Your task to perform on an android device: change text size in settings app Image 0: 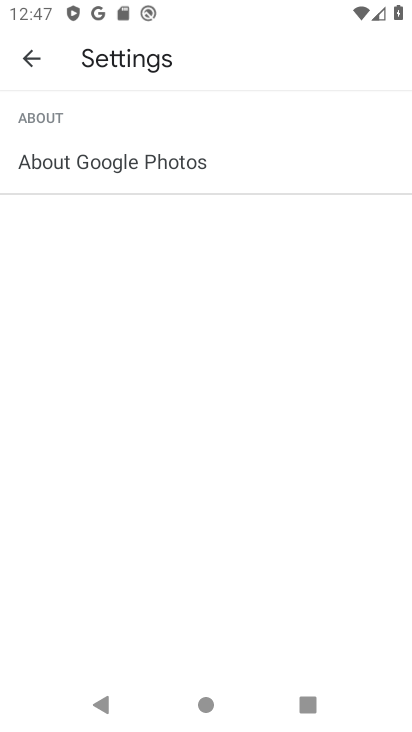
Step 0: press back button
Your task to perform on an android device: change text size in settings app Image 1: 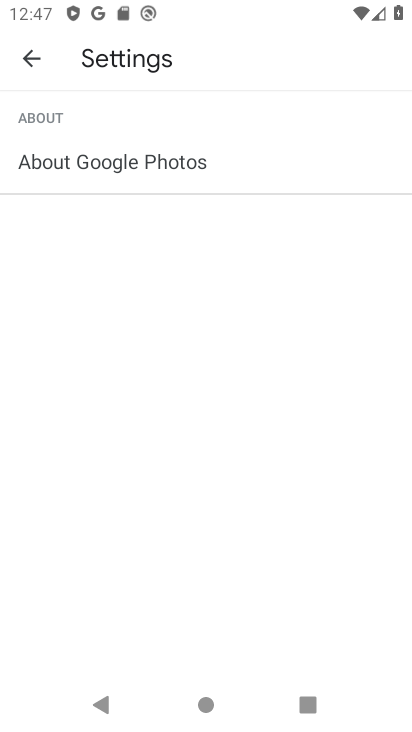
Step 1: press back button
Your task to perform on an android device: change text size in settings app Image 2: 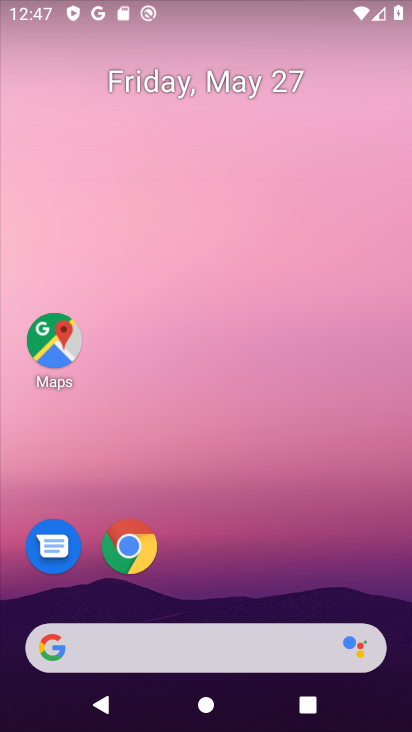
Step 2: drag from (256, 668) to (166, 352)
Your task to perform on an android device: change text size in settings app Image 3: 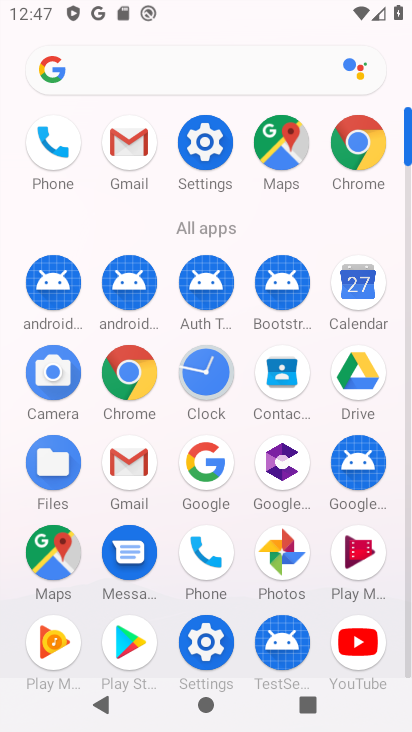
Step 3: click (204, 653)
Your task to perform on an android device: change text size in settings app Image 4: 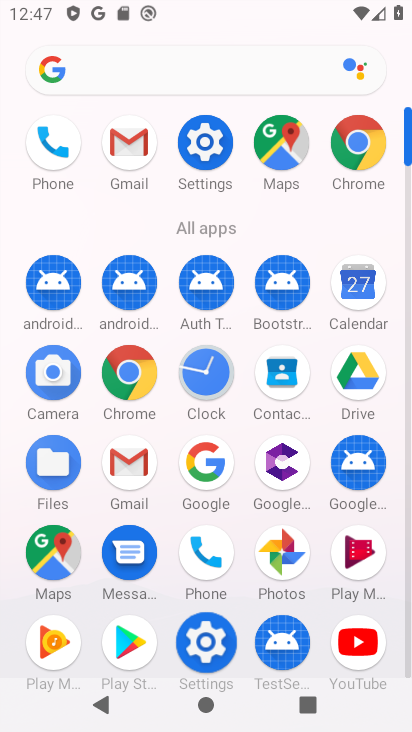
Step 4: click (203, 653)
Your task to perform on an android device: change text size in settings app Image 5: 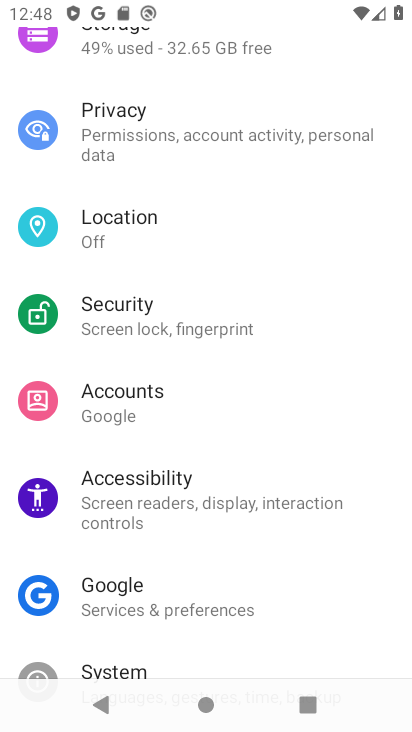
Step 5: drag from (165, 571) to (169, 273)
Your task to perform on an android device: change text size in settings app Image 6: 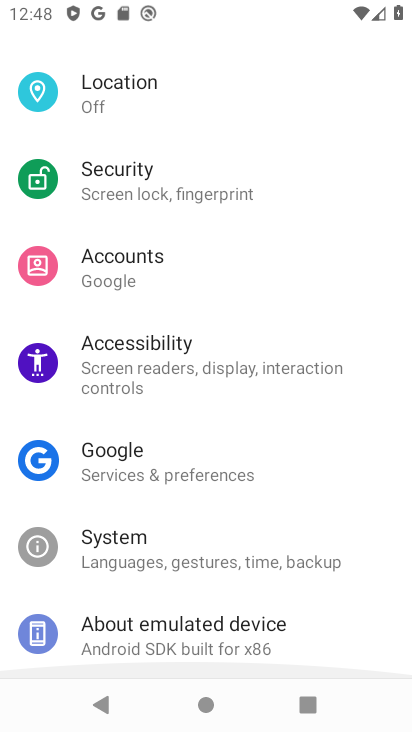
Step 6: drag from (182, 408) to (166, 199)
Your task to perform on an android device: change text size in settings app Image 7: 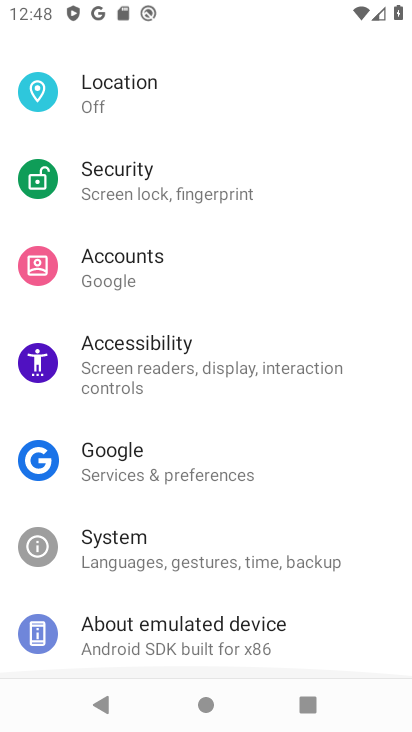
Step 7: drag from (196, 241) to (198, 169)
Your task to perform on an android device: change text size in settings app Image 8: 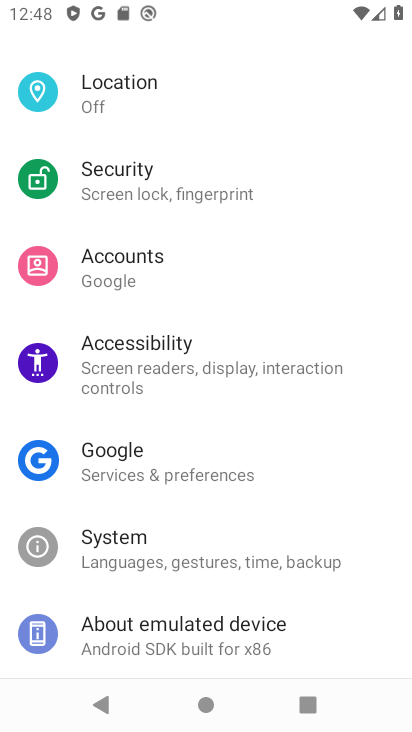
Step 8: drag from (179, 376) to (190, 450)
Your task to perform on an android device: change text size in settings app Image 9: 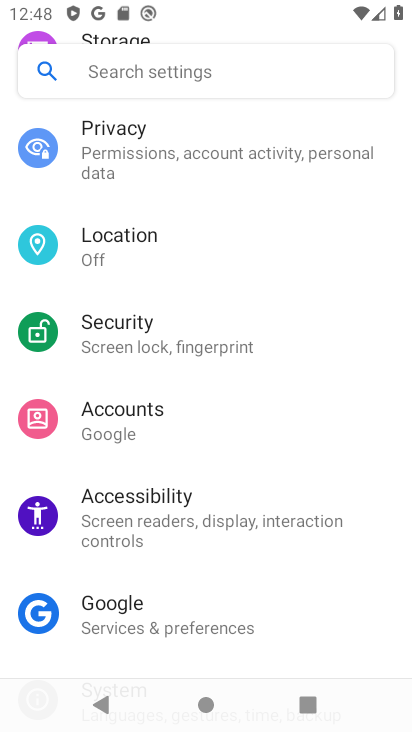
Step 9: drag from (130, 264) to (170, 554)
Your task to perform on an android device: change text size in settings app Image 10: 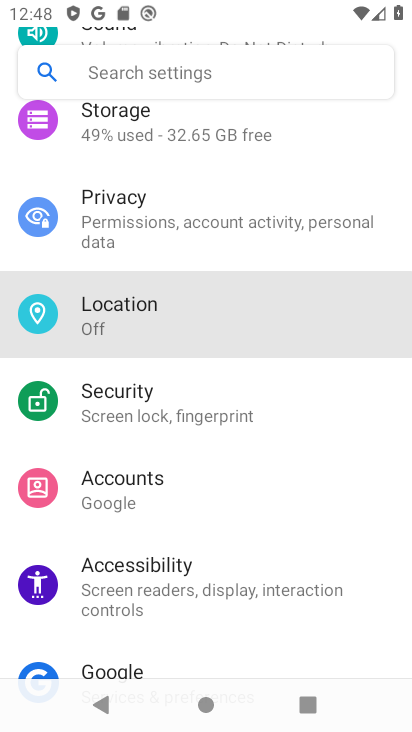
Step 10: drag from (108, 447) to (128, 589)
Your task to perform on an android device: change text size in settings app Image 11: 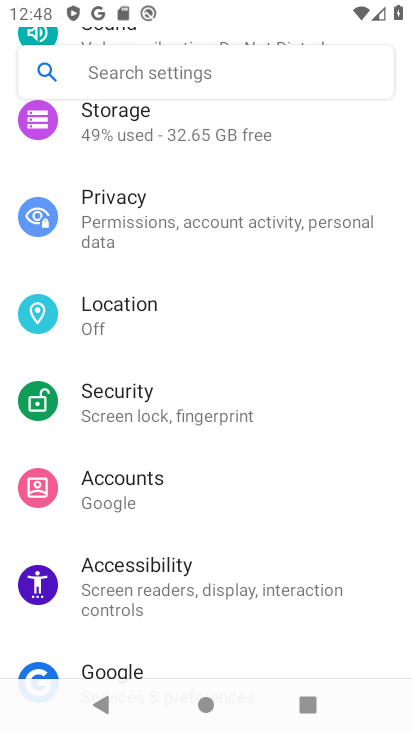
Step 11: drag from (121, 401) to (154, 571)
Your task to perform on an android device: change text size in settings app Image 12: 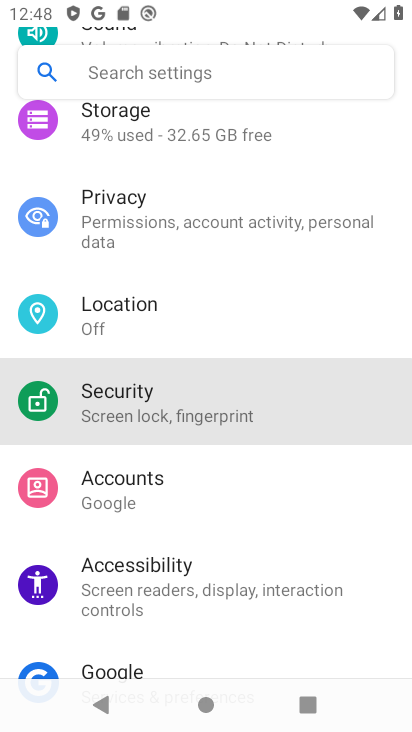
Step 12: drag from (137, 393) to (185, 622)
Your task to perform on an android device: change text size in settings app Image 13: 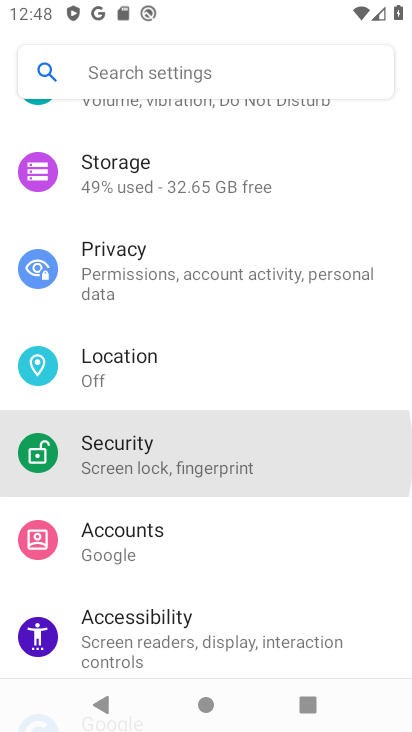
Step 13: drag from (185, 308) to (211, 483)
Your task to perform on an android device: change text size in settings app Image 14: 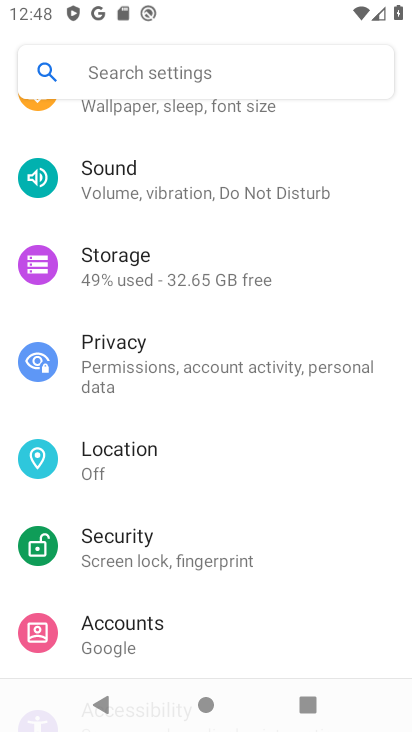
Step 14: drag from (175, 279) to (201, 452)
Your task to perform on an android device: change text size in settings app Image 15: 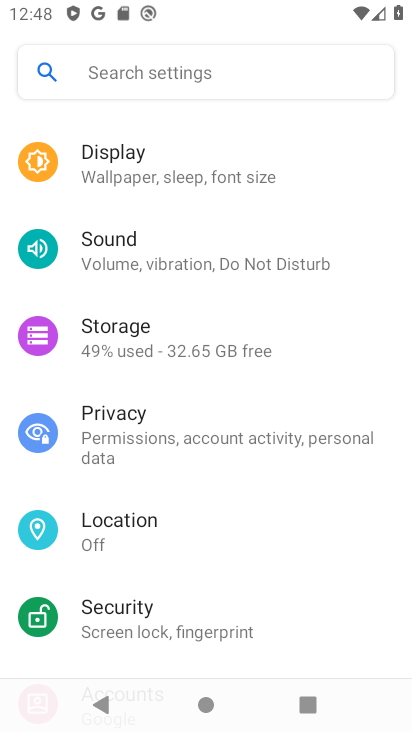
Step 15: drag from (171, 260) to (179, 487)
Your task to perform on an android device: change text size in settings app Image 16: 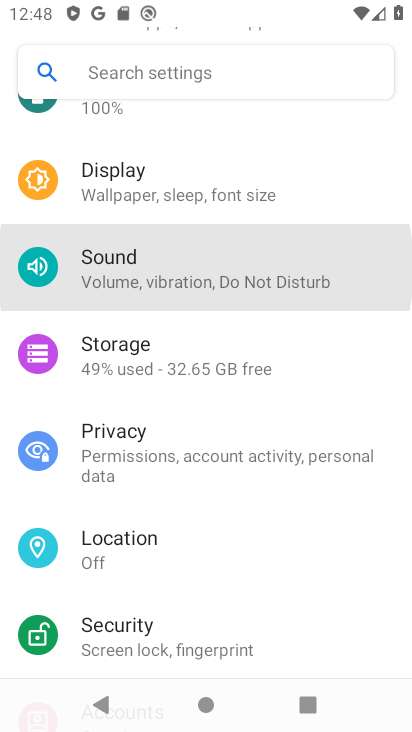
Step 16: drag from (163, 228) to (221, 503)
Your task to perform on an android device: change text size in settings app Image 17: 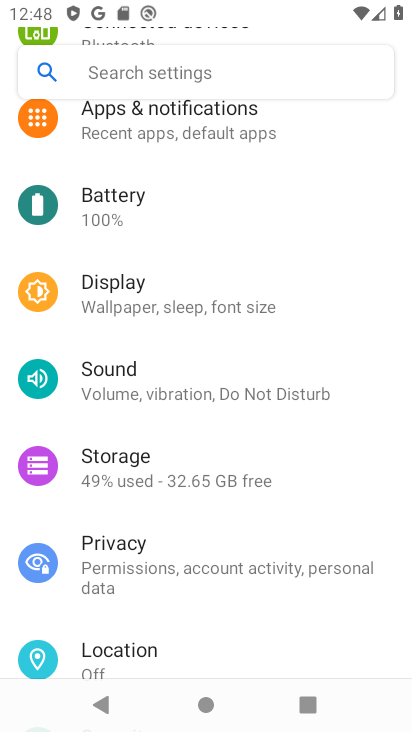
Step 17: drag from (188, 257) to (203, 511)
Your task to perform on an android device: change text size in settings app Image 18: 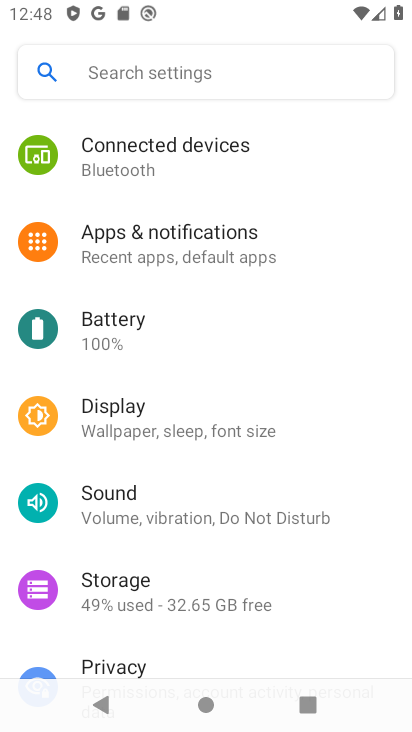
Step 18: drag from (141, 277) to (178, 524)
Your task to perform on an android device: change text size in settings app Image 19: 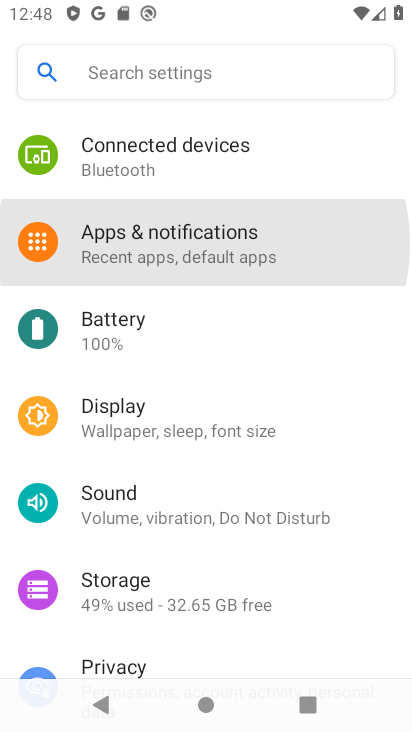
Step 19: drag from (111, 247) to (170, 598)
Your task to perform on an android device: change text size in settings app Image 20: 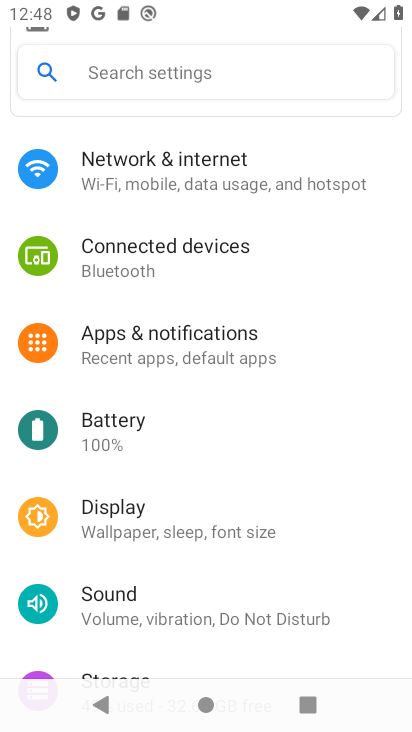
Step 20: click (126, 512)
Your task to perform on an android device: change text size in settings app Image 21: 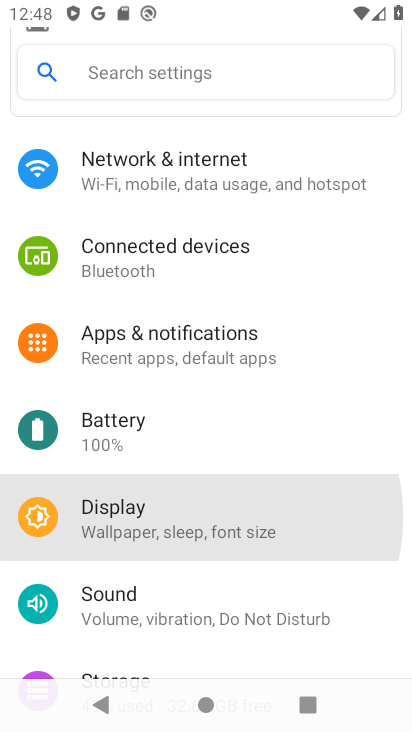
Step 21: click (129, 509)
Your task to perform on an android device: change text size in settings app Image 22: 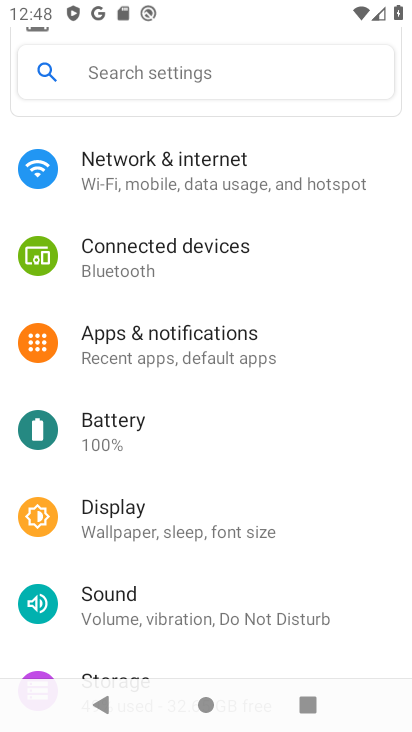
Step 22: click (128, 509)
Your task to perform on an android device: change text size in settings app Image 23: 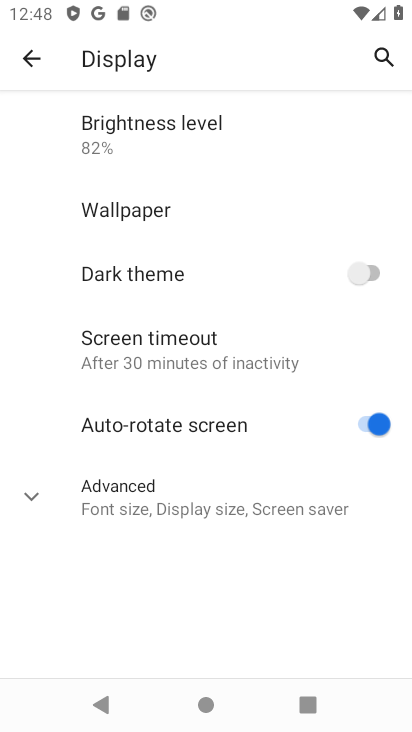
Step 23: click (152, 363)
Your task to perform on an android device: change text size in settings app Image 24: 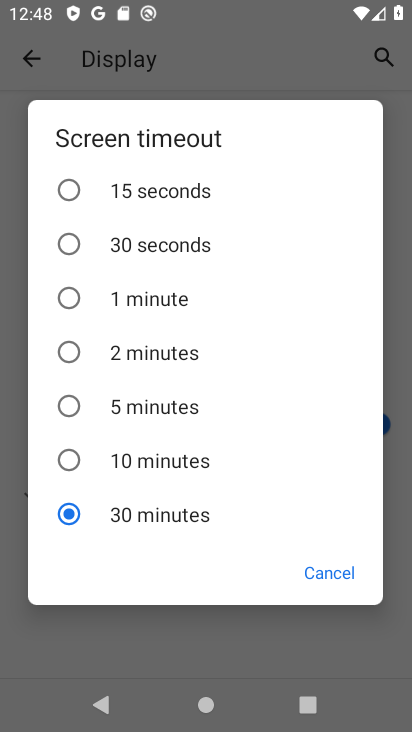
Step 24: click (74, 410)
Your task to perform on an android device: change text size in settings app Image 25: 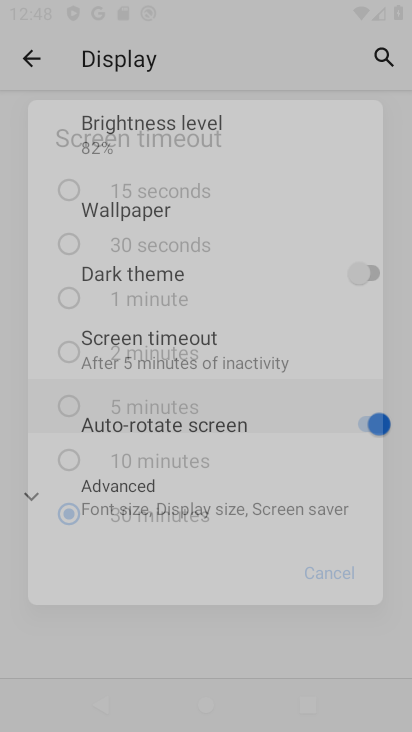
Step 25: click (74, 402)
Your task to perform on an android device: change text size in settings app Image 26: 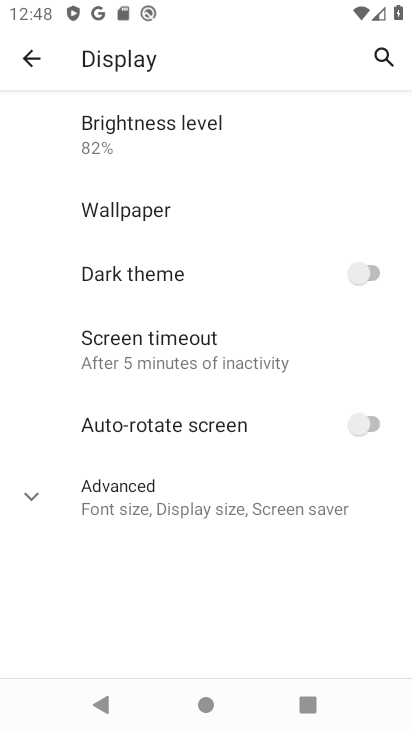
Step 26: task complete